Your task to perform on an android device: move a message to another label in the gmail app Image 0: 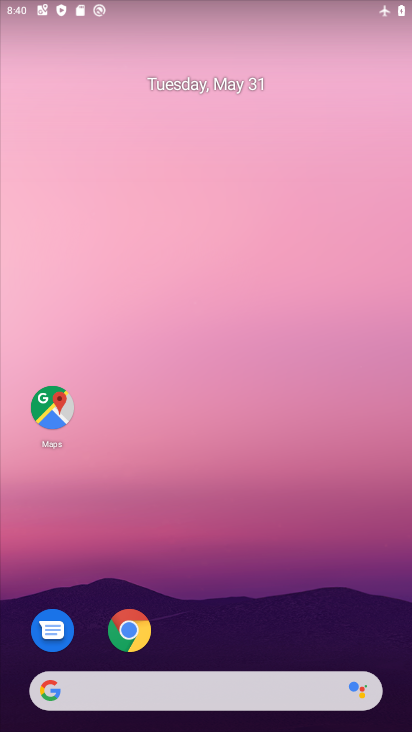
Step 0: drag from (228, 638) to (275, 303)
Your task to perform on an android device: move a message to another label in the gmail app Image 1: 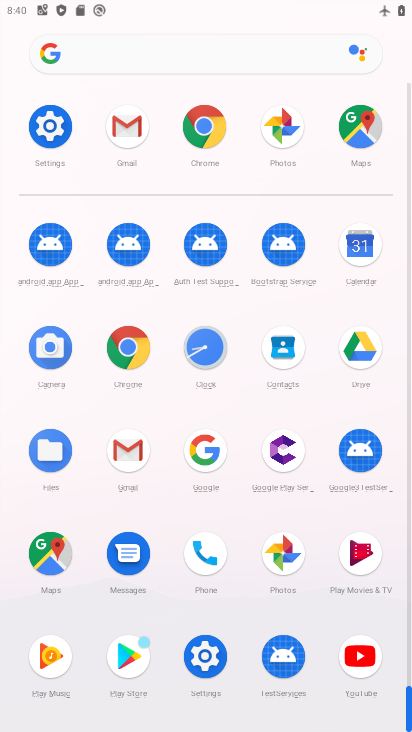
Step 1: click (133, 457)
Your task to perform on an android device: move a message to another label in the gmail app Image 2: 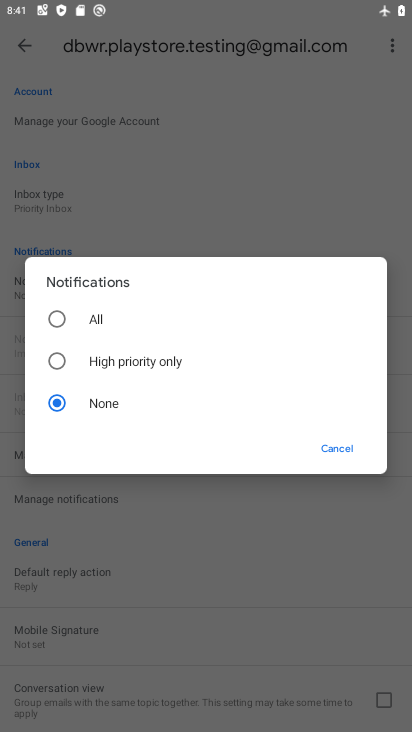
Step 2: click (319, 451)
Your task to perform on an android device: move a message to another label in the gmail app Image 3: 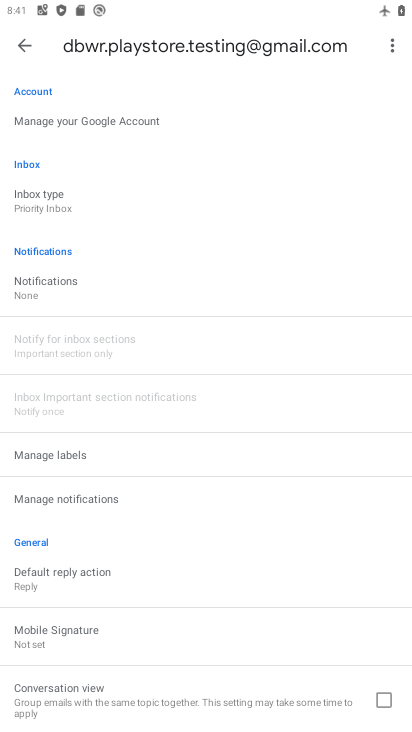
Step 3: click (26, 45)
Your task to perform on an android device: move a message to another label in the gmail app Image 4: 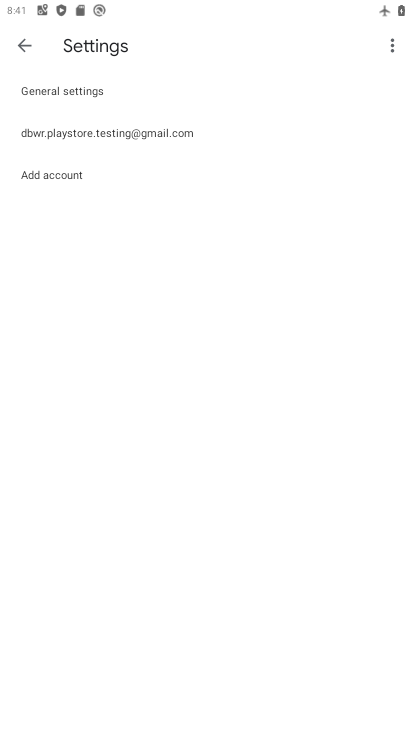
Step 4: click (31, 55)
Your task to perform on an android device: move a message to another label in the gmail app Image 5: 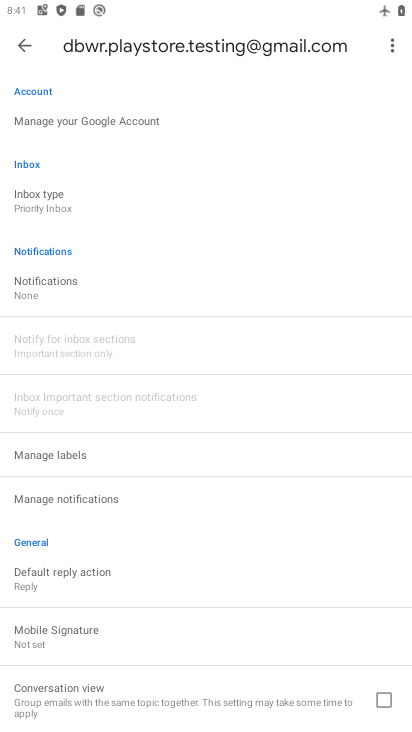
Step 5: click (23, 41)
Your task to perform on an android device: move a message to another label in the gmail app Image 6: 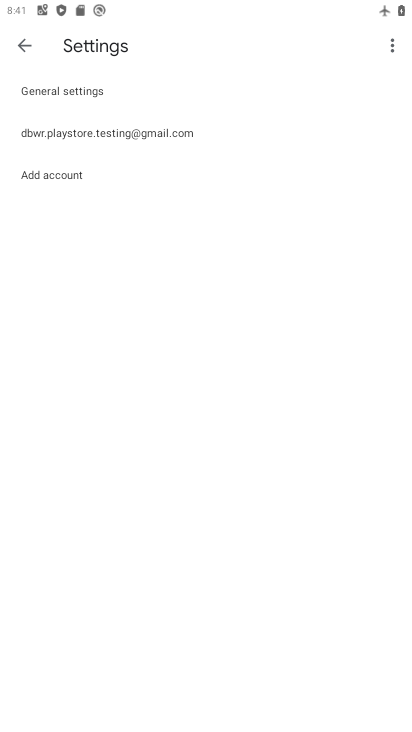
Step 6: click (38, 54)
Your task to perform on an android device: move a message to another label in the gmail app Image 7: 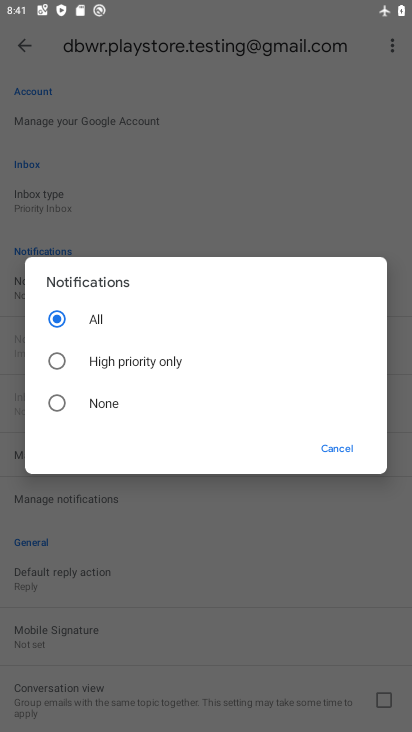
Step 7: click (345, 441)
Your task to perform on an android device: move a message to another label in the gmail app Image 8: 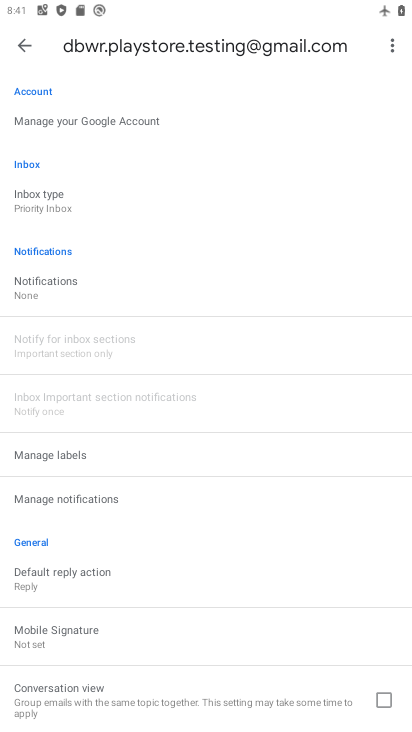
Step 8: press home button
Your task to perform on an android device: move a message to another label in the gmail app Image 9: 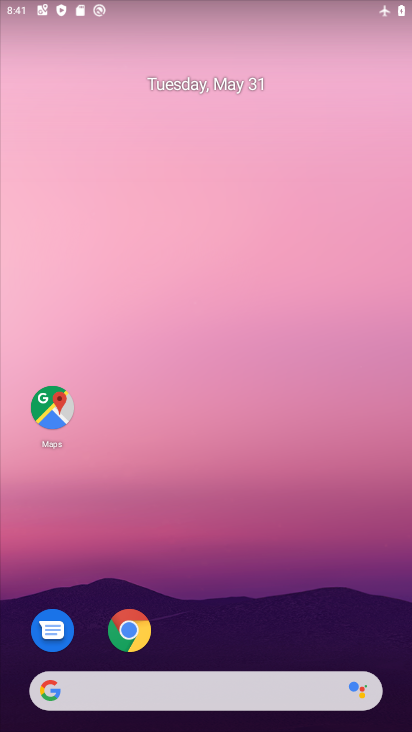
Step 9: click (243, 635)
Your task to perform on an android device: move a message to another label in the gmail app Image 10: 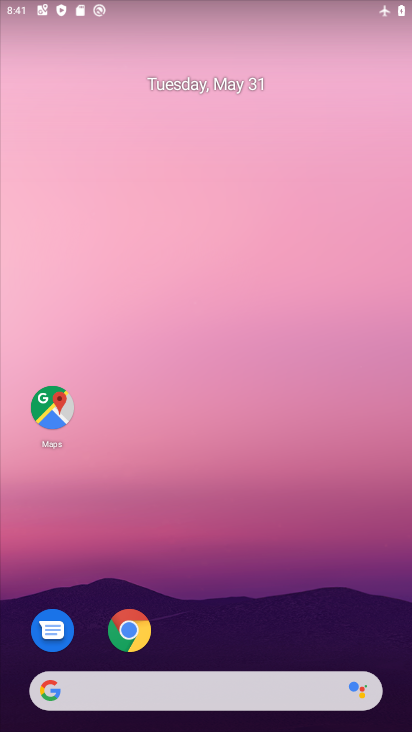
Step 10: drag from (209, 696) to (209, 307)
Your task to perform on an android device: move a message to another label in the gmail app Image 11: 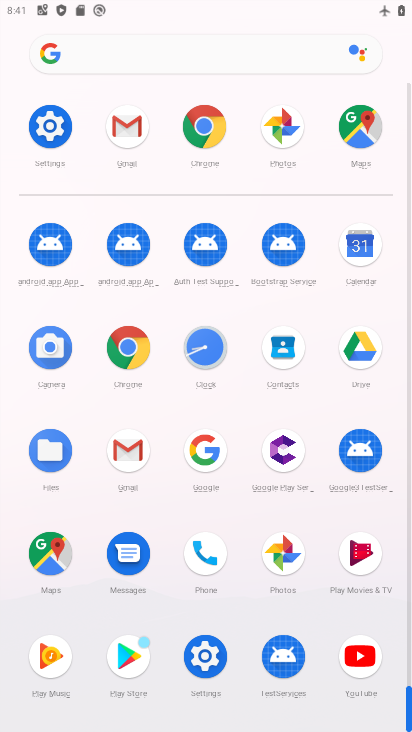
Step 11: click (113, 454)
Your task to perform on an android device: move a message to another label in the gmail app Image 12: 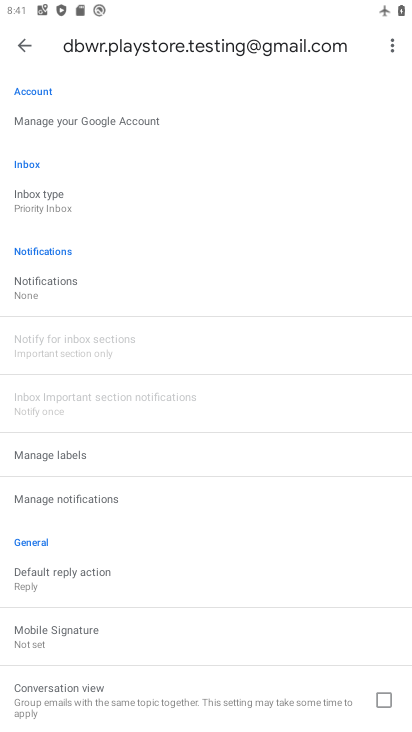
Step 12: click (20, 53)
Your task to perform on an android device: move a message to another label in the gmail app Image 13: 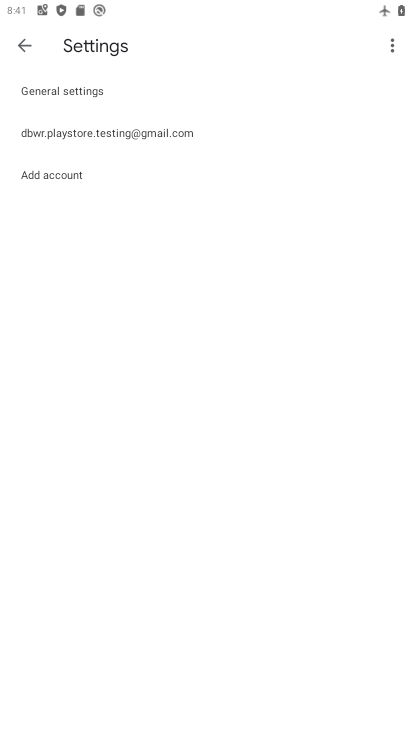
Step 13: click (20, 52)
Your task to perform on an android device: move a message to another label in the gmail app Image 14: 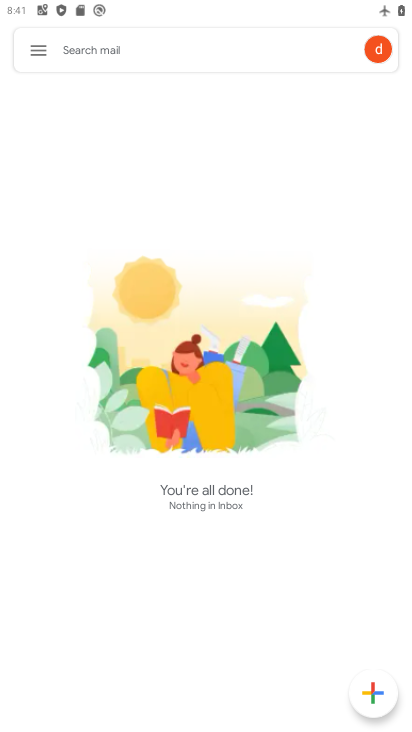
Step 14: click (34, 44)
Your task to perform on an android device: move a message to another label in the gmail app Image 15: 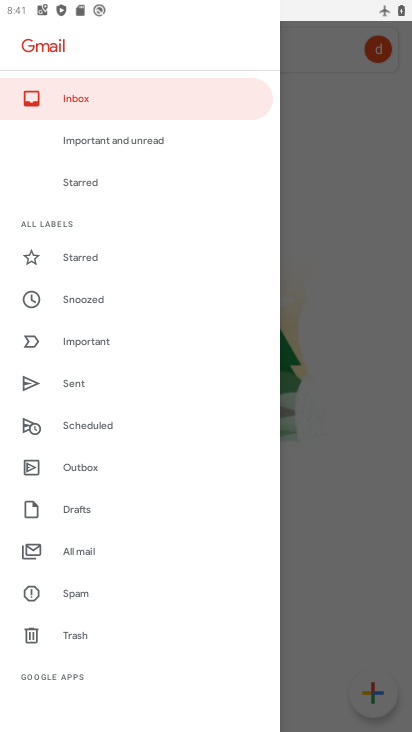
Step 15: click (93, 548)
Your task to perform on an android device: move a message to another label in the gmail app Image 16: 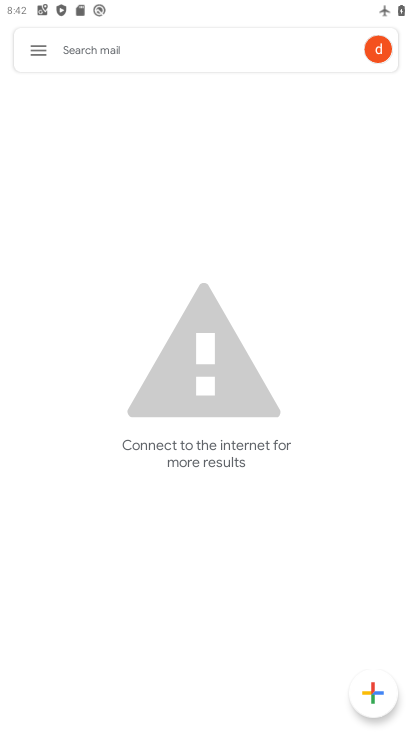
Step 16: task complete